Your task to perform on an android device: clear history in the chrome app Image 0: 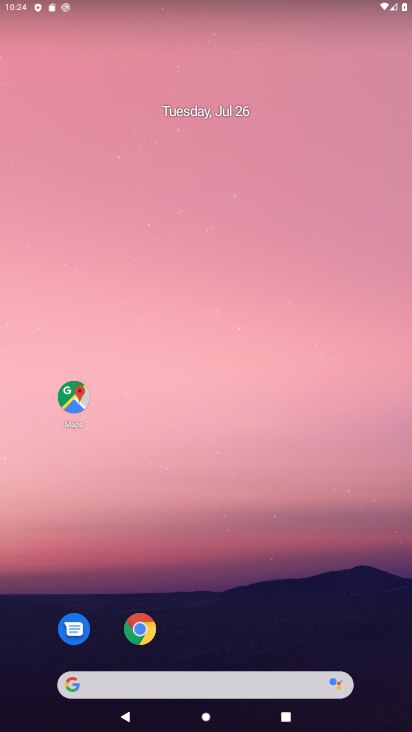
Step 0: drag from (268, 613) to (147, 86)
Your task to perform on an android device: clear history in the chrome app Image 1: 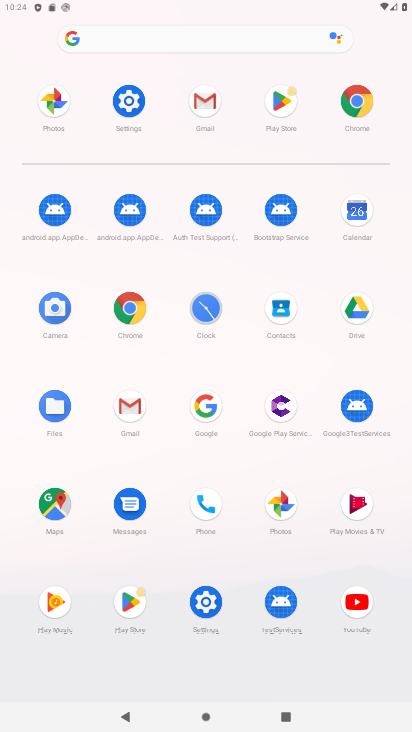
Step 1: click (355, 127)
Your task to perform on an android device: clear history in the chrome app Image 2: 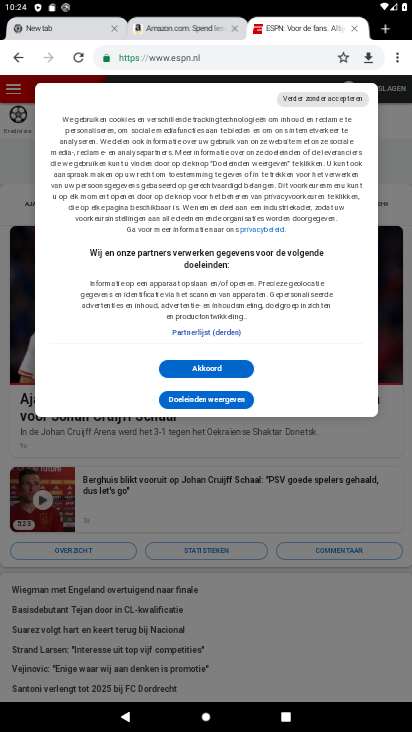
Step 2: click (397, 62)
Your task to perform on an android device: clear history in the chrome app Image 3: 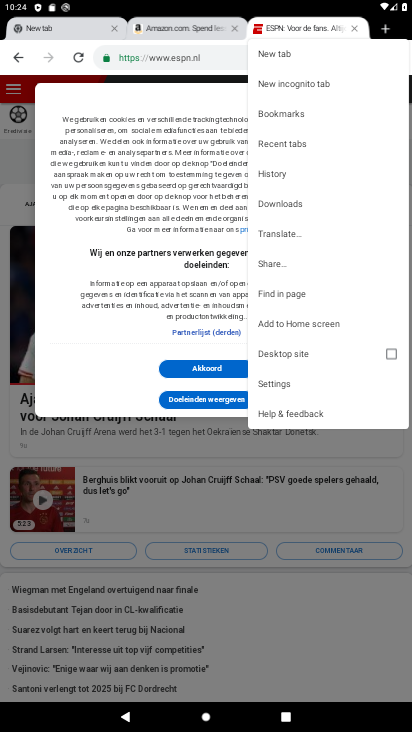
Step 3: click (301, 392)
Your task to perform on an android device: clear history in the chrome app Image 4: 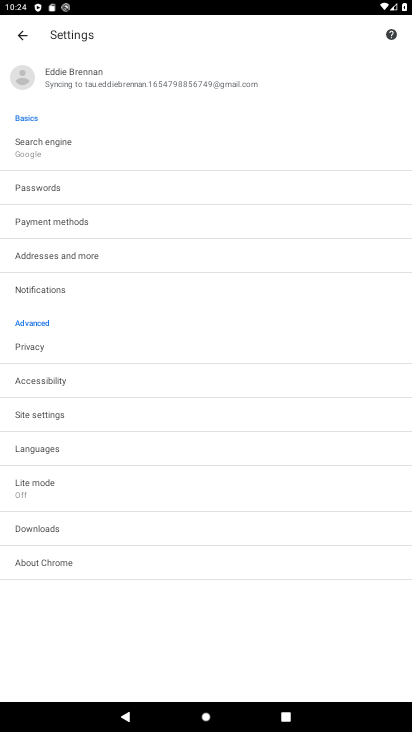
Step 4: task complete